Your task to perform on an android device: star an email in the gmail app Image 0: 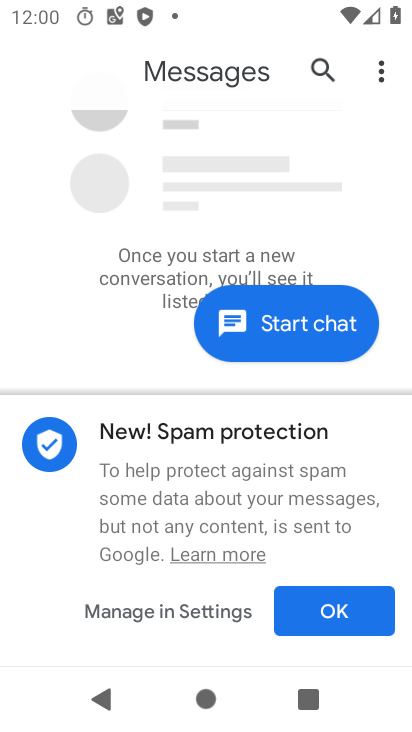
Step 0: press home button
Your task to perform on an android device: star an email in the gmail app Image 1: 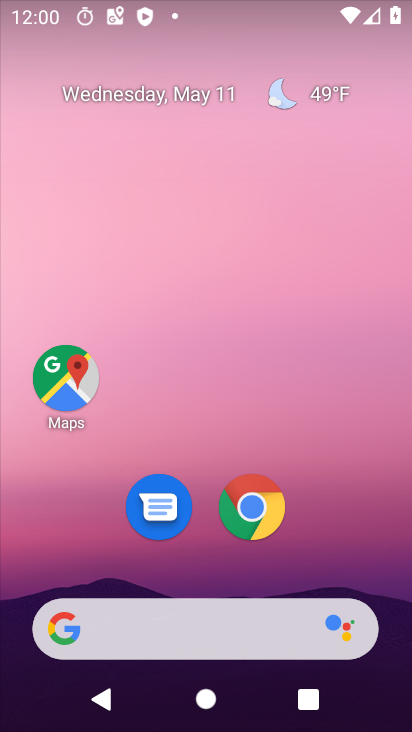
Step 1: drag from (208, 562) to (181, 78)
Your task to perform on an android device: star an email in the gmail app Image 2: 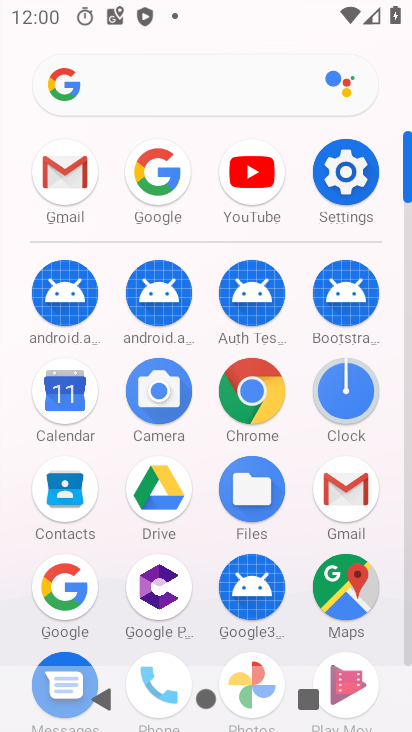
Step 2: click (350, 496)
Your task to perform on an android device: star an email in the gmail app Image 3: 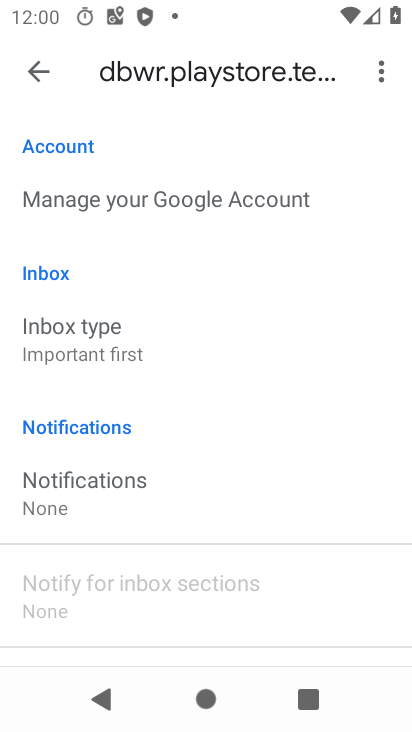
Step 3: press back button
Your task to perform on an android device: star an email in the gmail app Image 4: 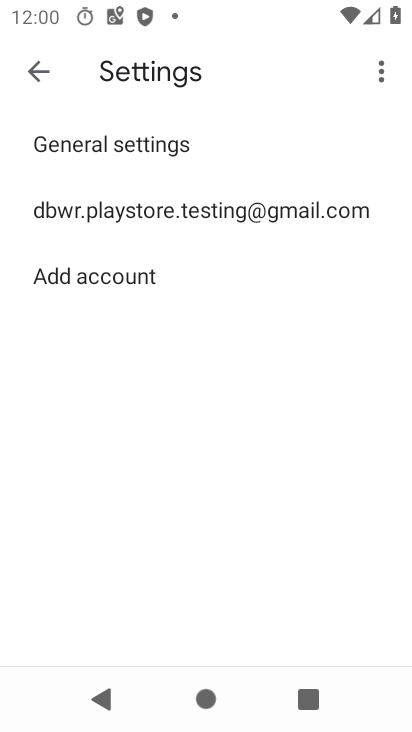
Step 4: press back button
Your task to perform on an android device: star an email in the gmail app Image 5: 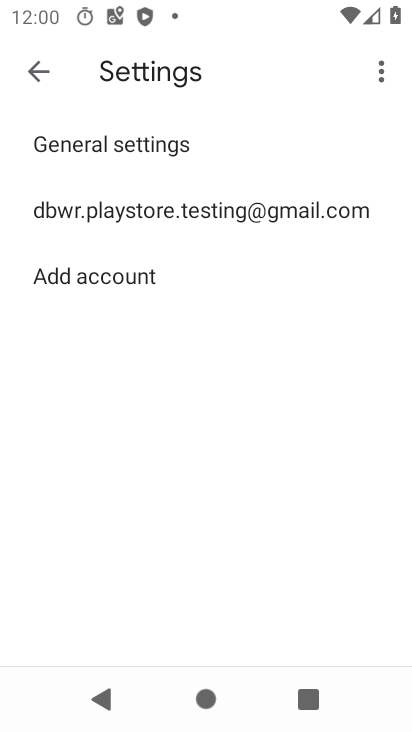
Step 5: press back button
Your task to perform on an android device: star an email in the gmail app Image 6: 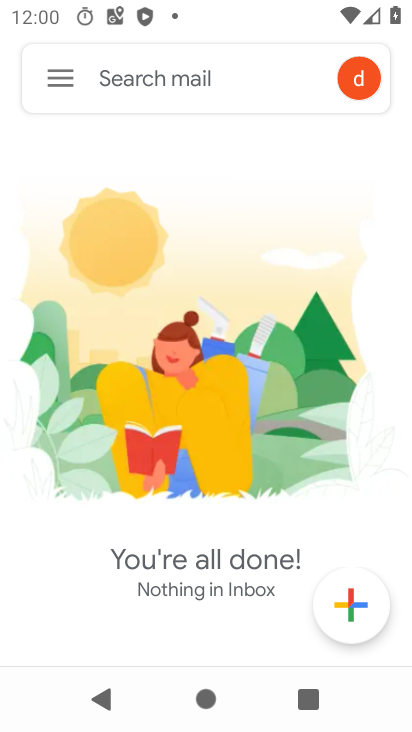
Step 6: click (60, 78)
Your task to perform on an android device: star an email in the gmail app Image 7: 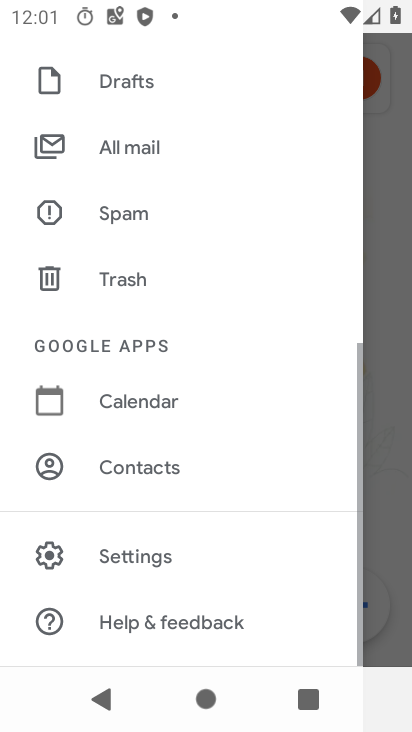
Step 7: click (136, 138)
Your task to perform on an android device: star an email in the gmail app Image 8: 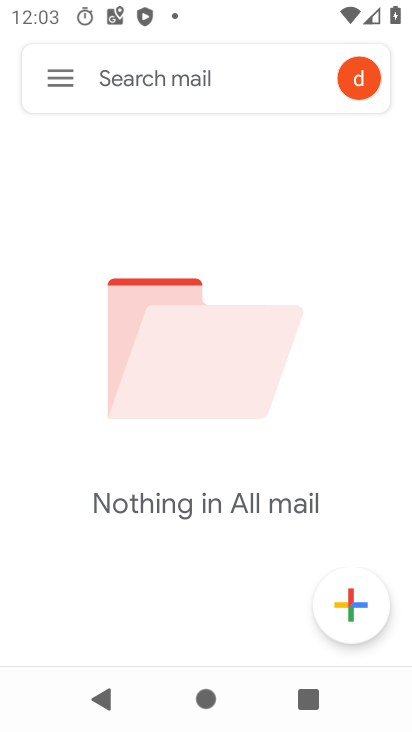
Step 8: task complete